Your task to perform on an android device: Open Yahoo.com Image 0: 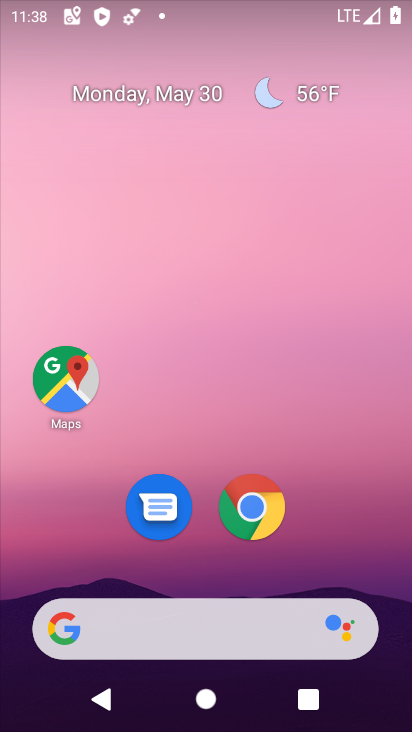
Step 0: click (168, 633)
Your task to perform on an android device: Open Yahoo.com Image 1: 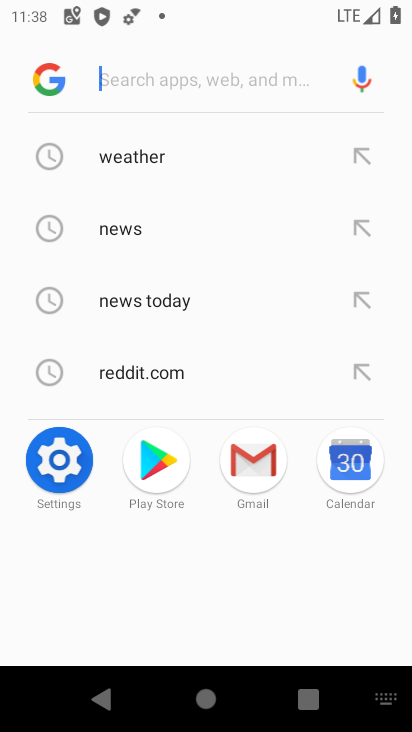
Step 1: type "Yahoo.com"
Your task to perform on an android device: Open Yahoo.com Image 2: 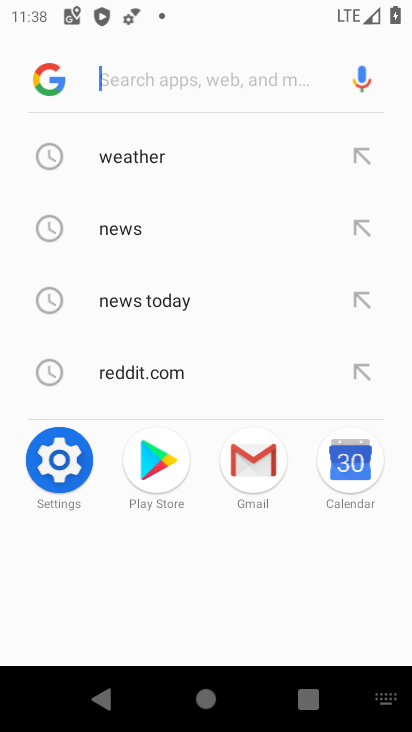
Step 2: click (179, 78)
Your task to perform on an android device: Open Yahoo.com Image 3: 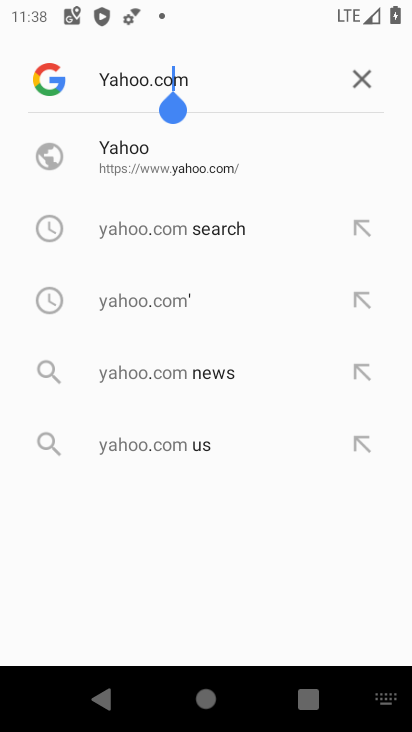
Step 3: click (119, 158)
Your task to perform on an android device: Open Yahoo.com Image 4: 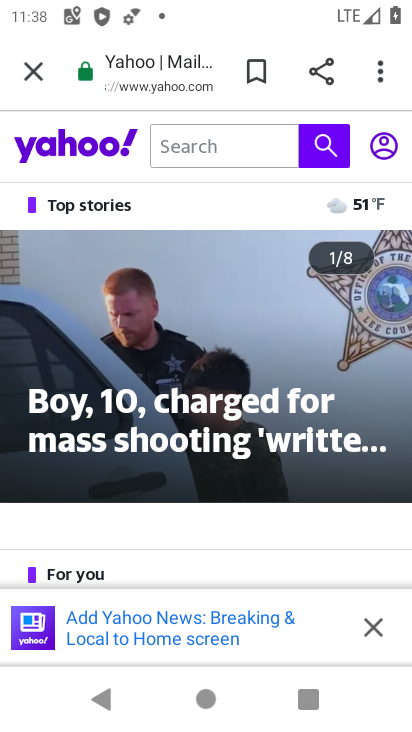
Step 4: task complete